Your task to perform on an android device: toggle javascript in the chrome app Image 0: 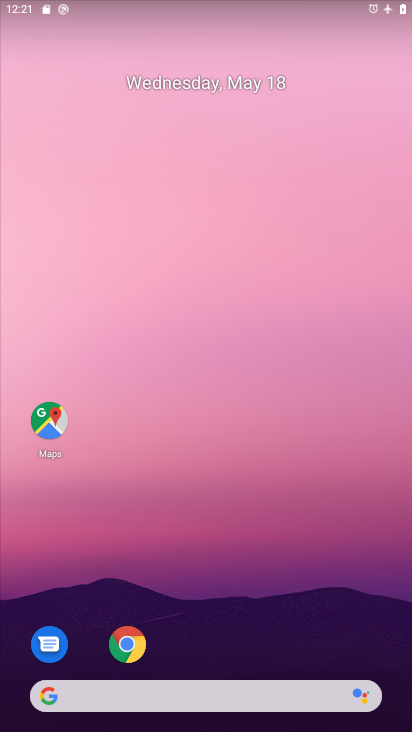
Step 0: press home button
Your task to perform on an android device: toggle javascript in the chrome app Image 1: 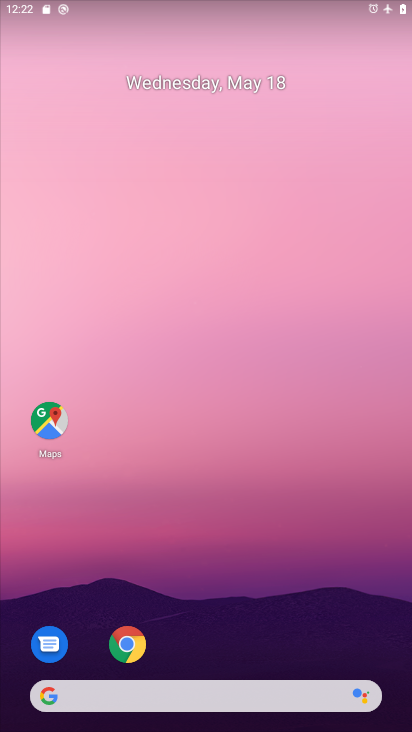
Step 1: click (126, 641)
Your task to perform on an android device: toggle javascript in the chrome app Image 2: 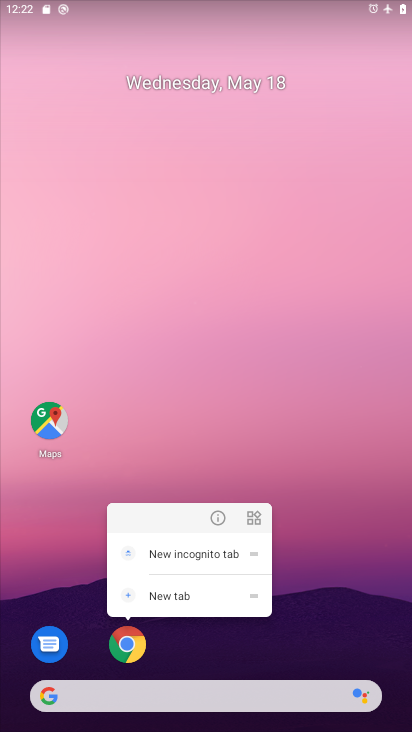
Step 2: click (134, 640)
Your task to perform on an android device: toggle javascript in the chrome app Image 3: 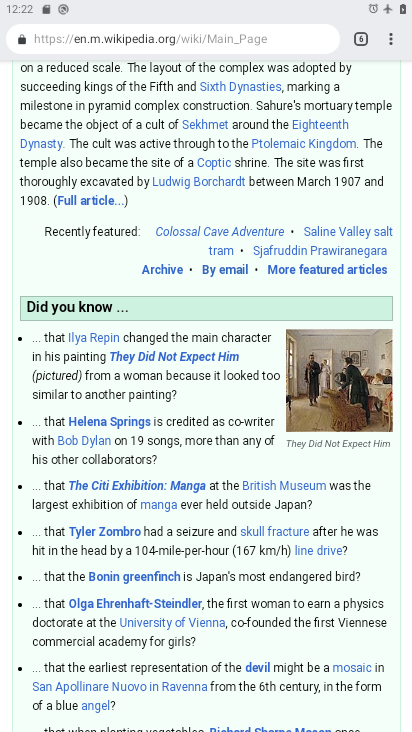
Step 3: click (391, 42)
Your task to perform on an android device: toggle javascript in the chrome app Image 4: 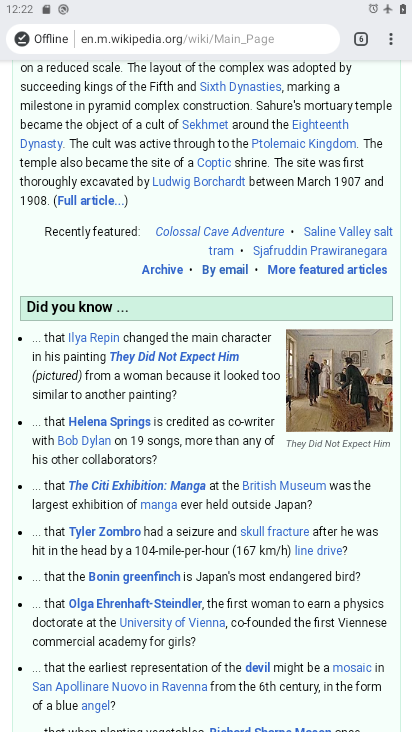
Step 4: click (396, 35)
Your task to perform on an android device: toggle javascript in the chrome app Image 5: 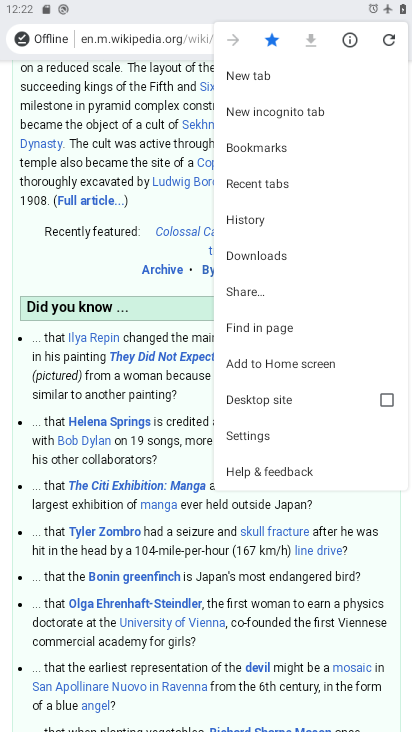
Step 5: click (276, 431)
Your task to perform on an android device: toggle javascript in the chrome app Image 6: 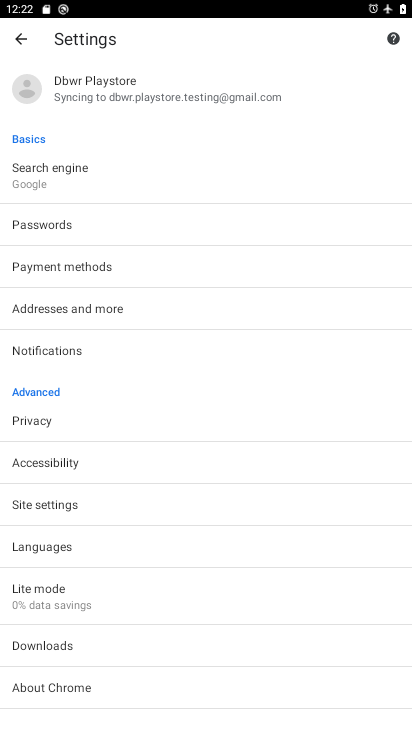
Step 6: click (90, 500)
Your task to perform on an android device: toggle javascript in the chrome app Image 7: 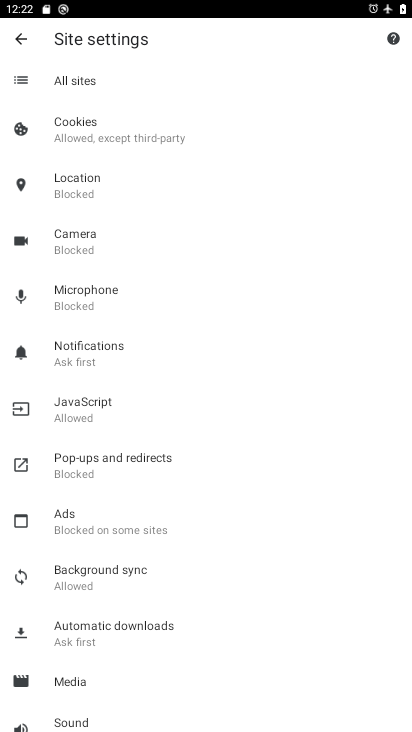
Step 7: click (124, 408)
Your task to perform on an android device: toggle javascript in the chrome app Image 8: 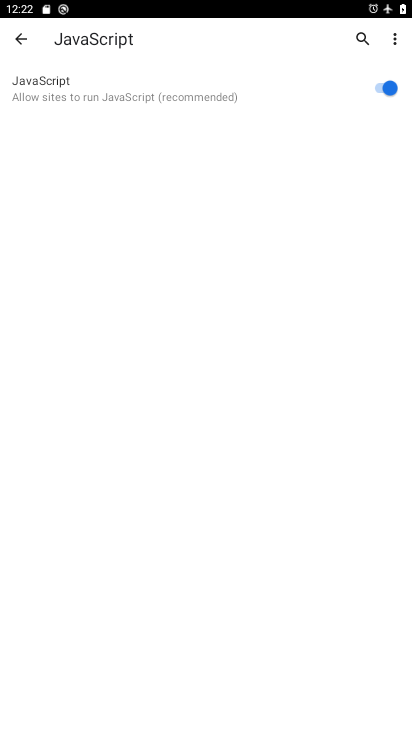
Step 8: click (378, 88)
Your task to perform on an android device: toggle javascript in the chrome app Image 9: 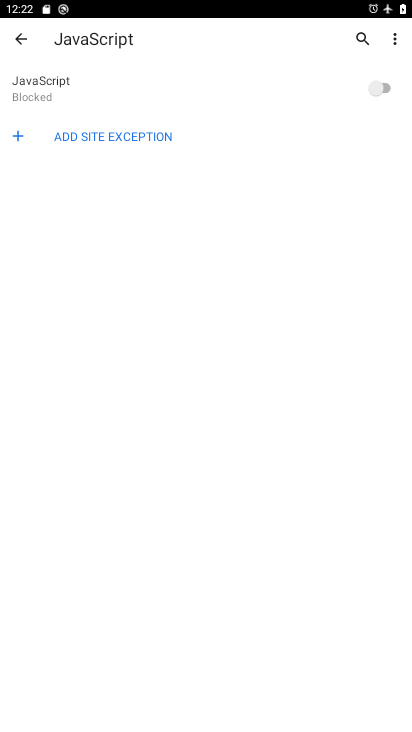
Step 9: task complete